Your task to perform on an android device: change alarm snooze length Image 0: 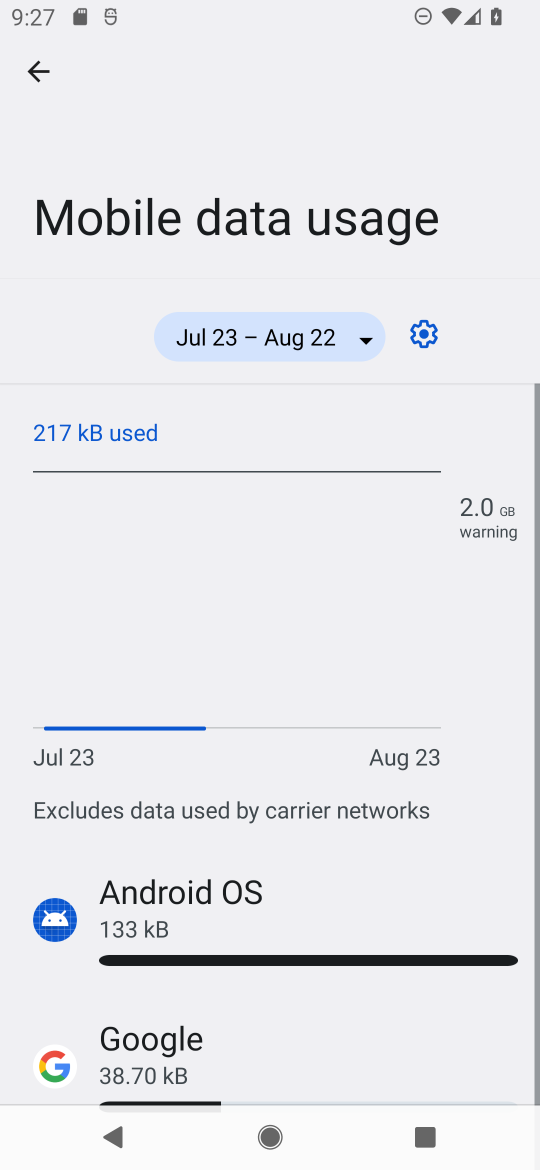
Step 0: press home button
Your task to perform on an android device: change alarm snooze length Image 1: 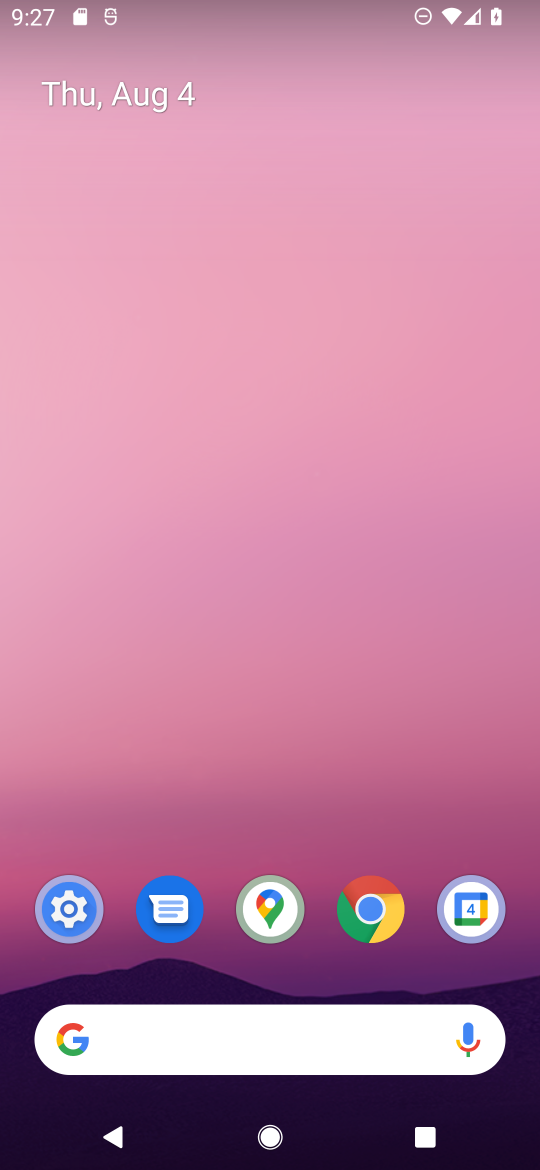
Step 1: drag from (376, 800) to (403, 293)
Your task to perform on an android device: change alarm snooze length Image 2: 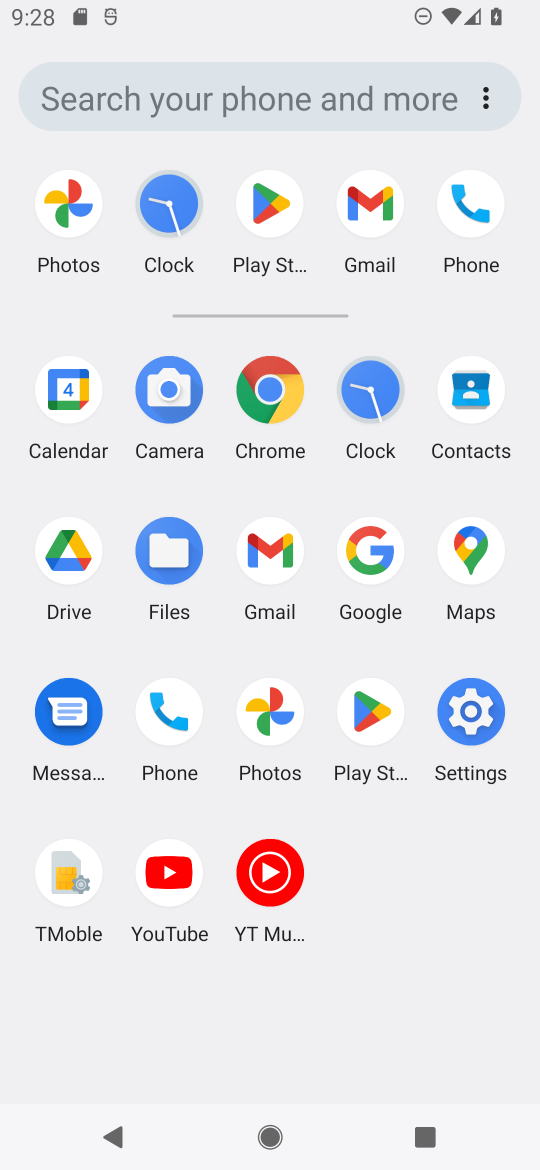
Step 2: click (367, 395)
Your task to perform on an android device: change alarm snooze length Image 3: 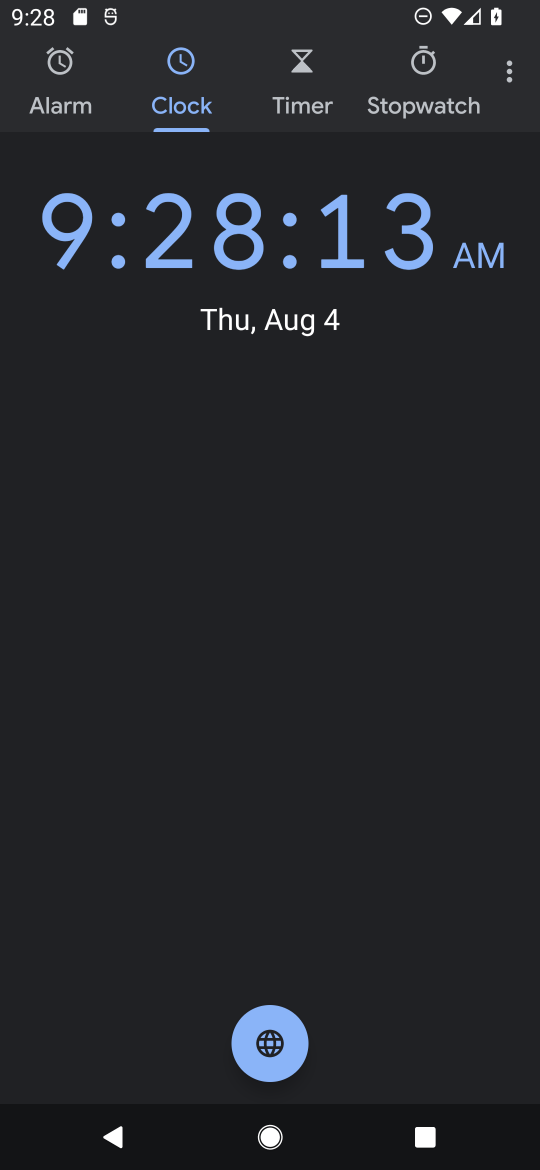
Step 3: click (511, 78)
Your task to perform on an android device: change alarm snooze length Image 4: 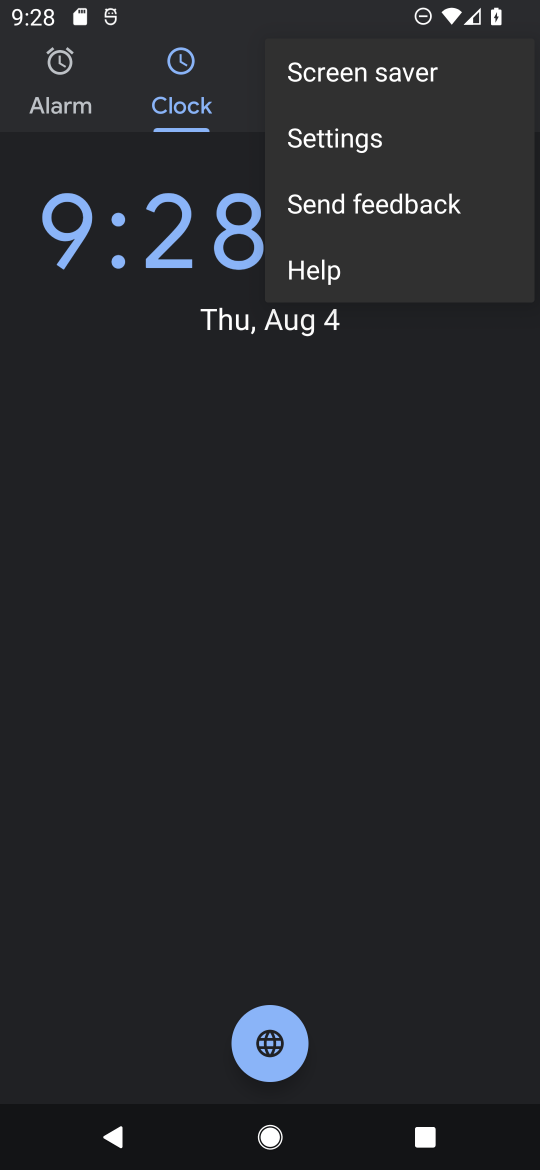
Step 4: click (383, 147)
Your task to perform on an android device: change alarm snooze length Image 5: 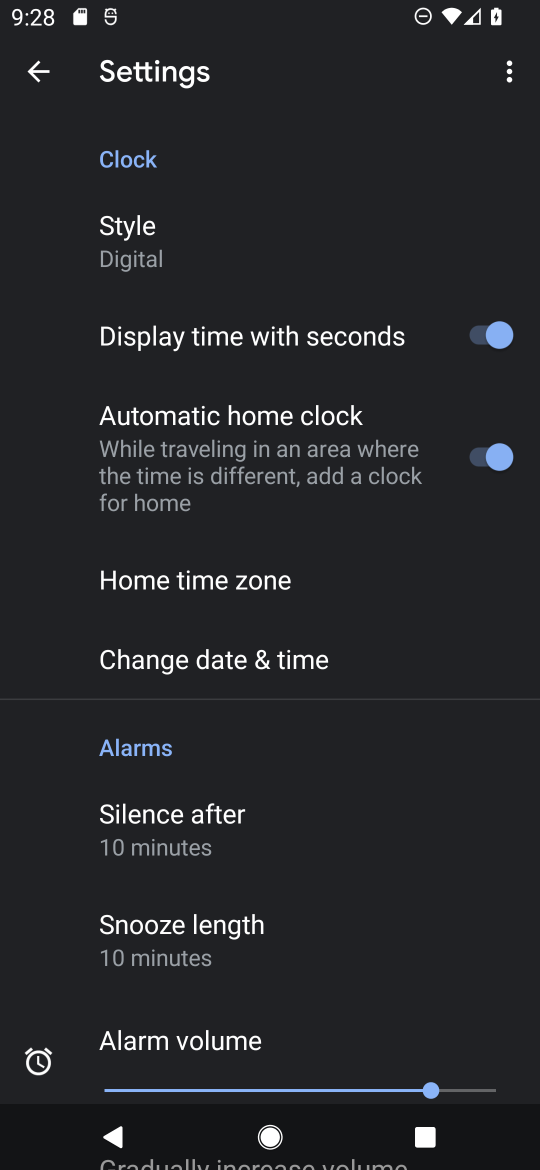
Step 5: drag from (439, 676) to (427, 549)
Your task to perform on an android device: change alarm snooze length Image 6: 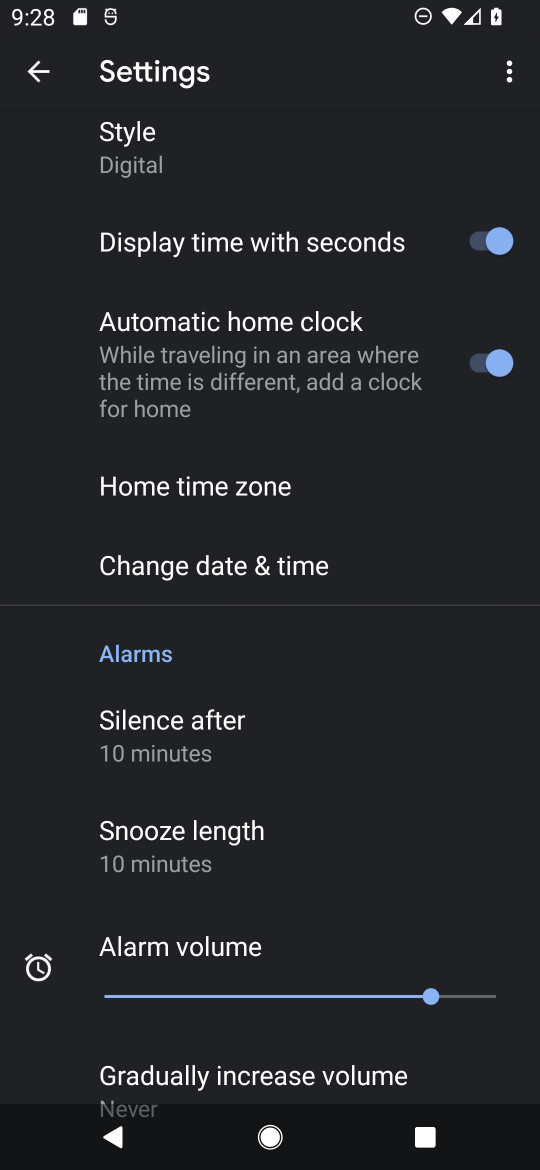
Step 6: drag from (431, 722) to (425, 628)
Your task to perform on an android device: change alarm snooze length Image 7: 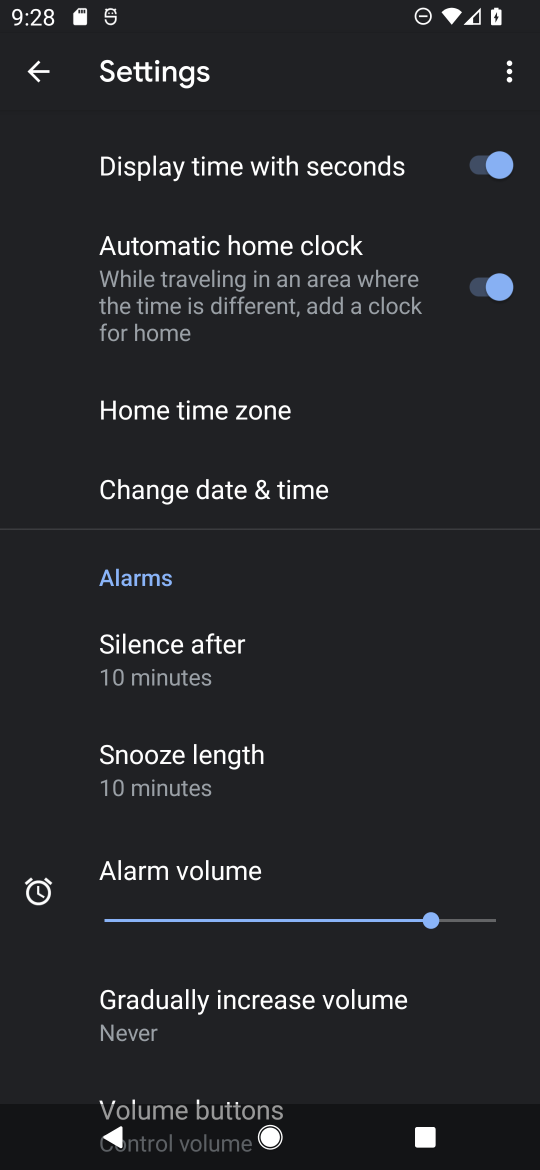
Step 7: drag from (440, 788) to (438, 618)
Your task to perform on an android device: change alarm snooze length Image 8: 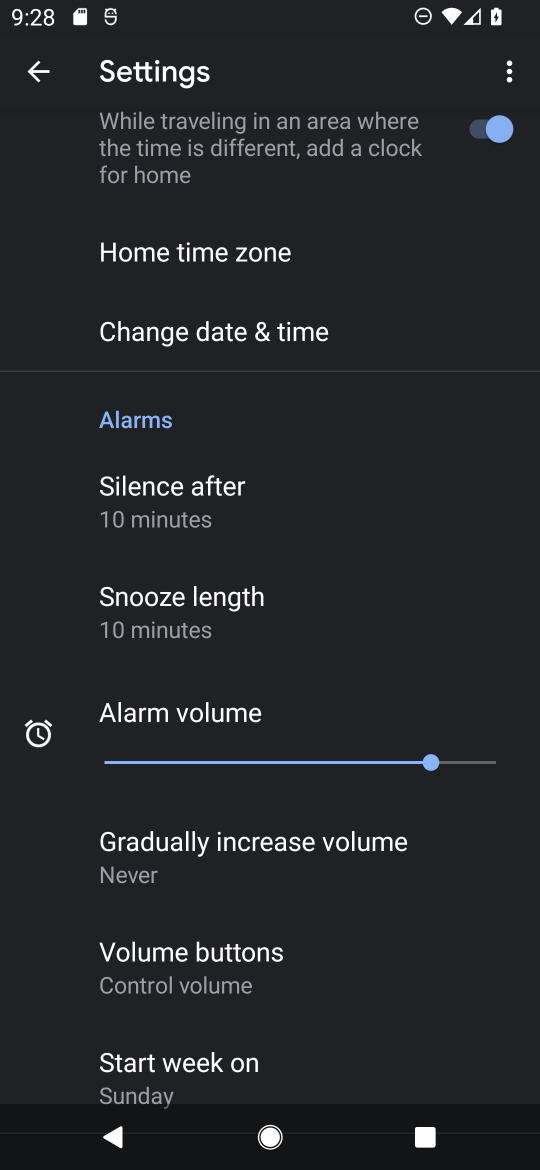
Step 8: drag from (453, 907) to (466, 730)
Your task to perform on an android device: change alarm snooze length Image 9: 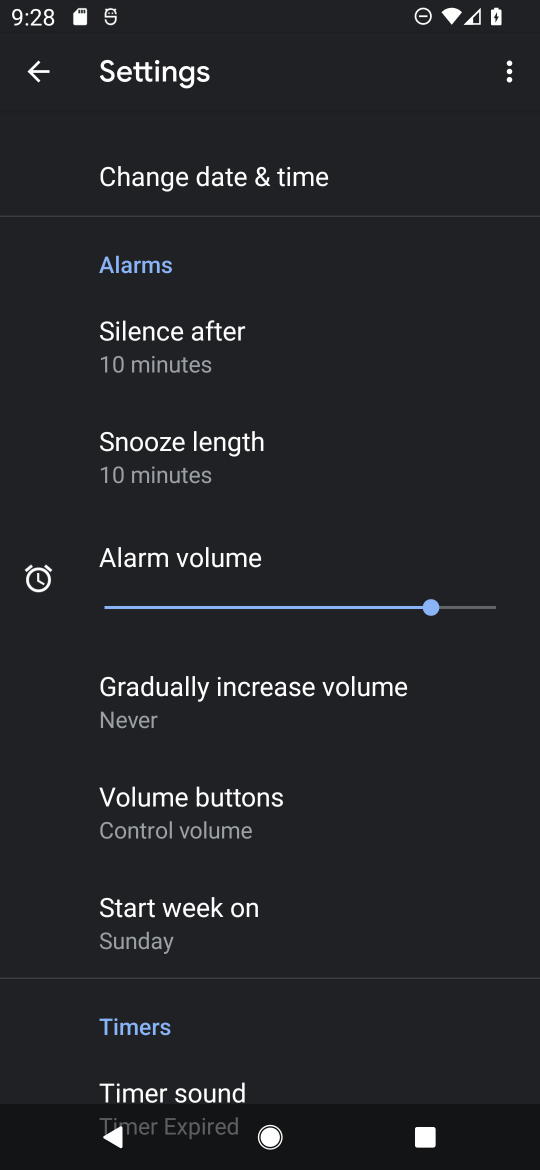
Step 9: click (249, 462)
Your task to perform on an android device: change alarm snooze length Image 10: 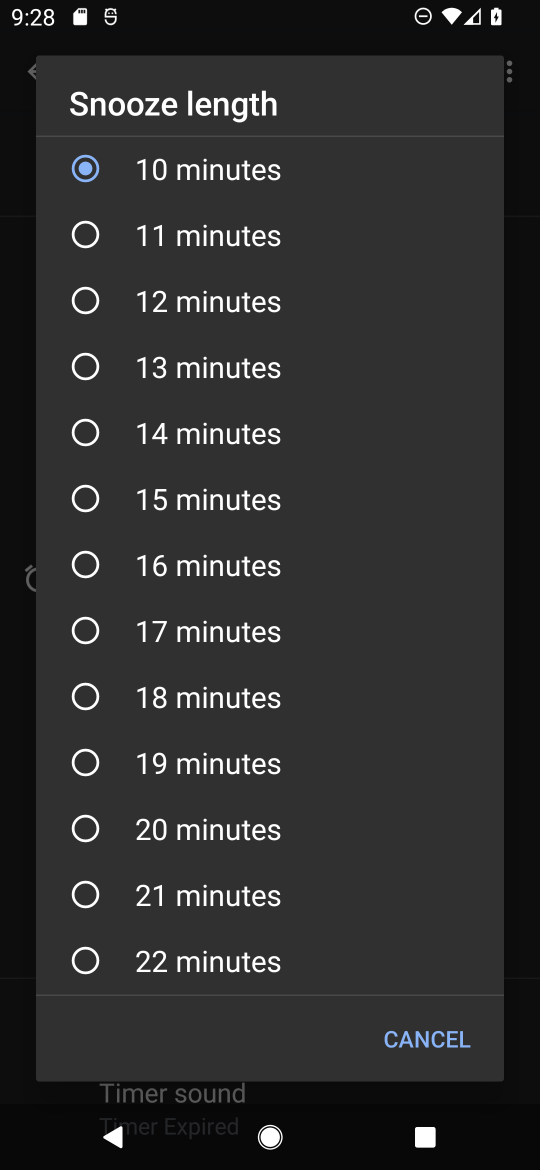
Step 10: drag from (348, 685) to (372, 540)
Your task to perform on an android device: change alarm snooze length Image 11: 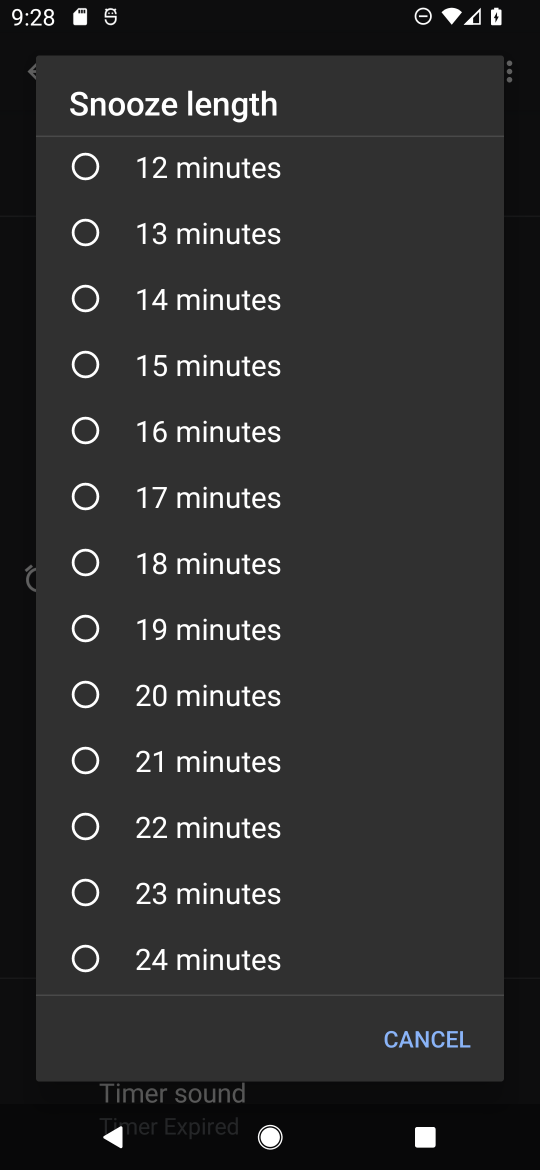
Step 11: click (271, 564)
Your task to perform on an android device: change alarm snooze length Image 12: 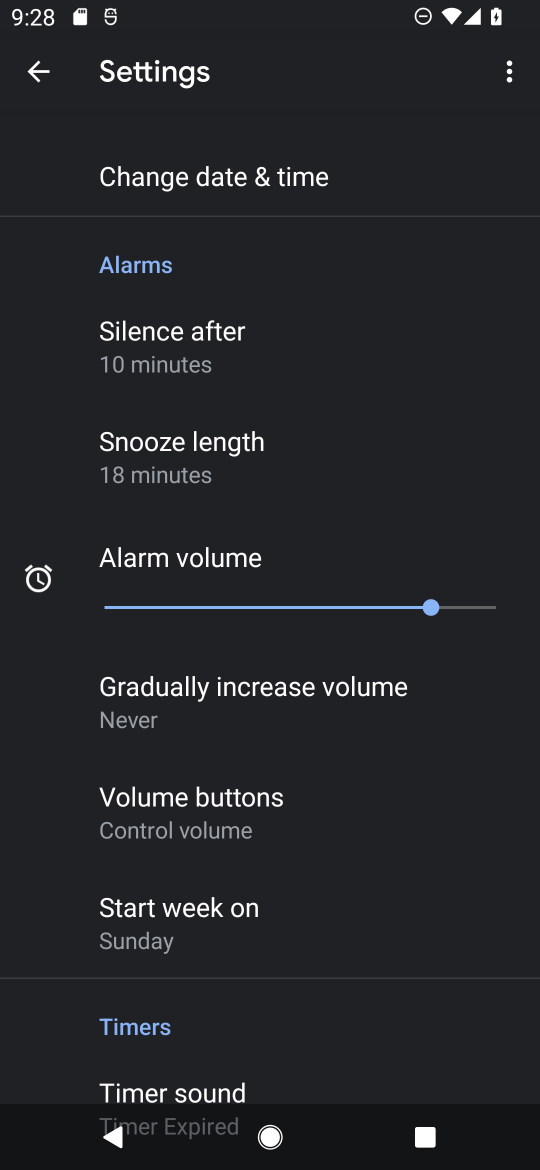
Step 12: task complete